Your task to perform on an android device: delete browsing data in the chrome app Image 0: 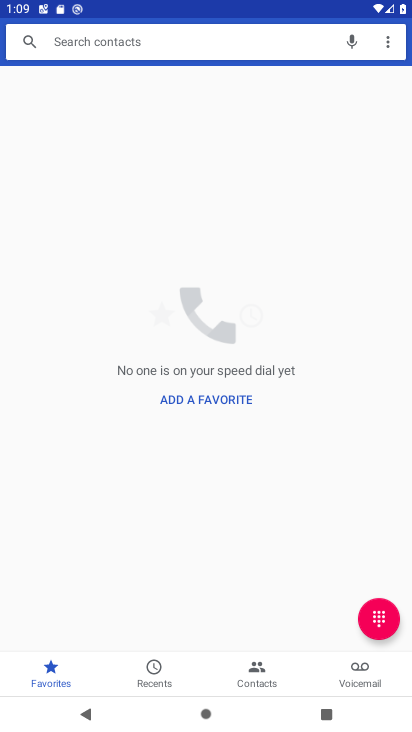
Step 0: press home button
Your task to perform on an android device: delete browsing data in the chrome app Image 1: 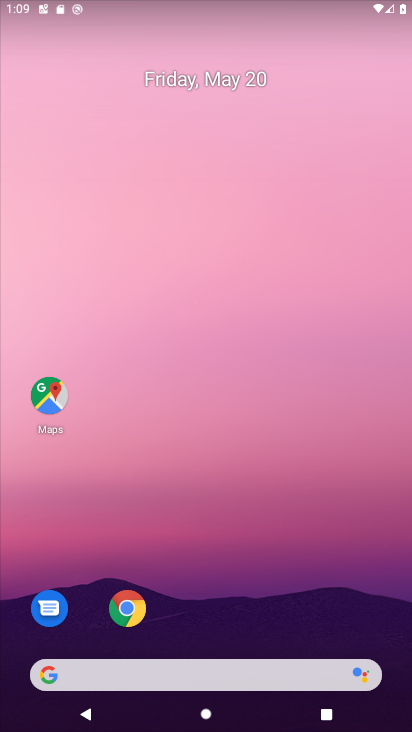
Step 1: click (135, 610)
Your task to perform on an android device: delete browsing data in the chrome app Image 2: 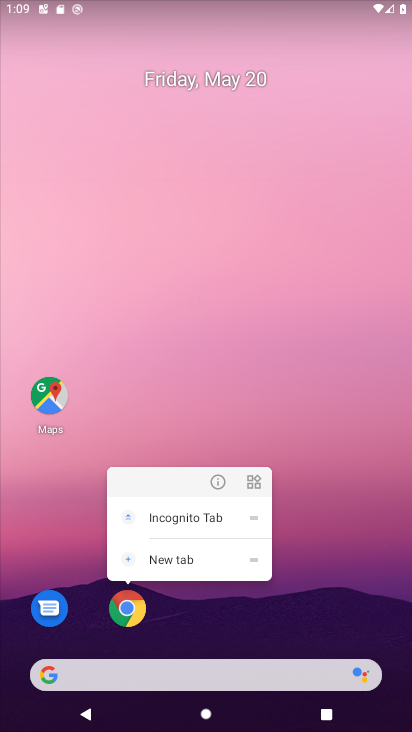
Step 2: click (135, 610)
Your task to perform on an android device: delete browsing data in the chrome app Image 3: 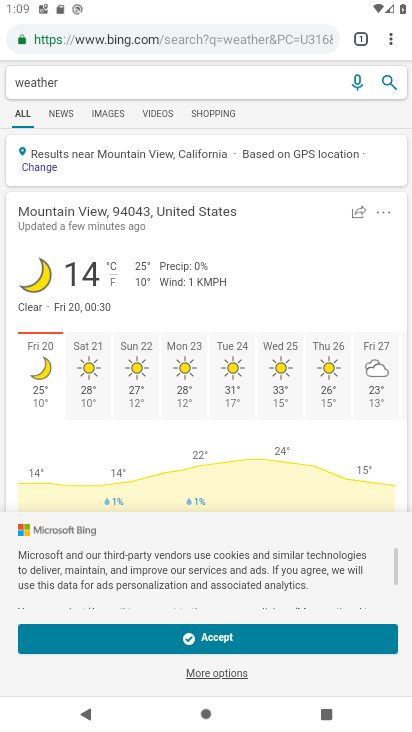
Step 3: drag from (388, 44) to (285, 215)
Your task to perform on an android device: delete browsing data in the chrome app Image 4: 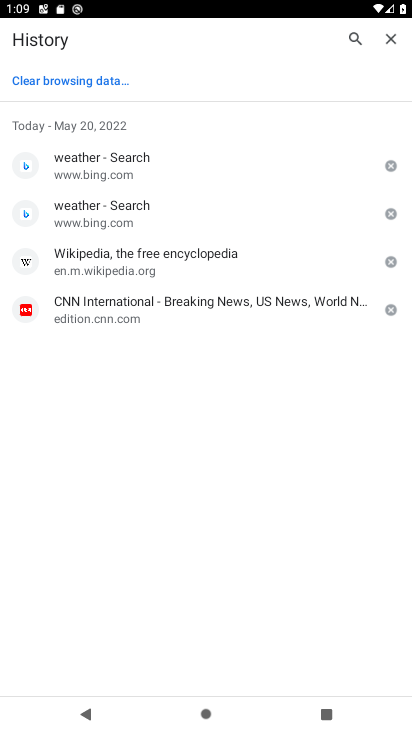
Step 4: click (74, 81)
Your task to perform on an android device: delete browsing data in the chrome app Image 5: 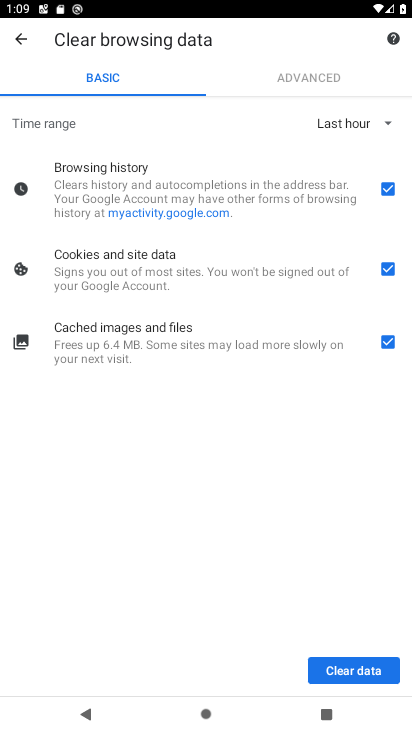
Step 5: click (387, 269)
Your task to perform on an android device: delete browsing data in the chrome app Image 6: 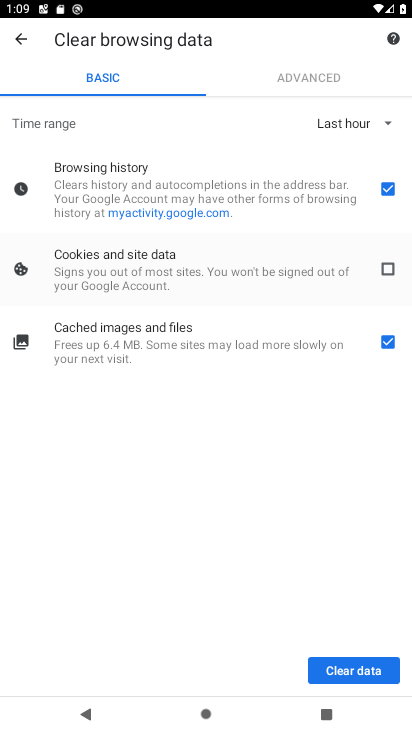
Step 6: click (386, 337)
Your task to perform on an android device: delete browsing data in the chrome app Image 7: 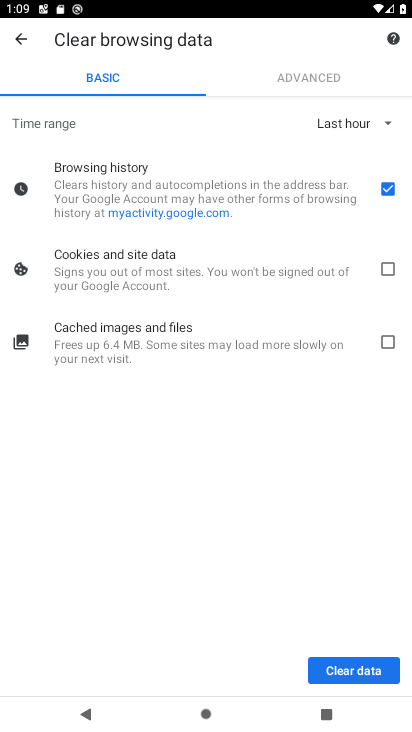
Step 7: click (363, 679)
Your task to perform on an android device: delete browsing data in the chrome app Image 8: 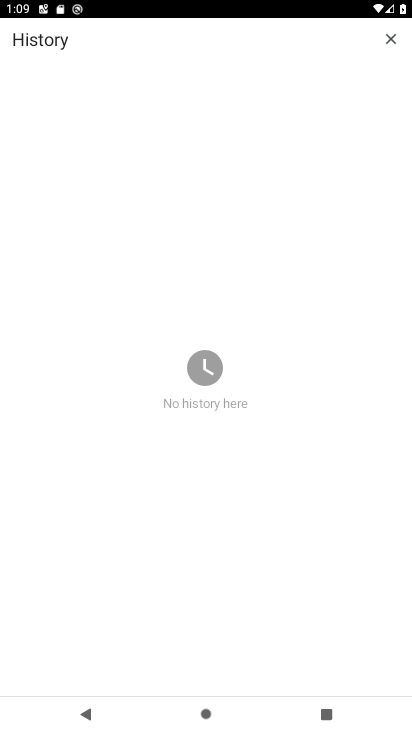
Step 8: task complete